Your task to perform on an android device: Go to Yahoo.com Image 0: 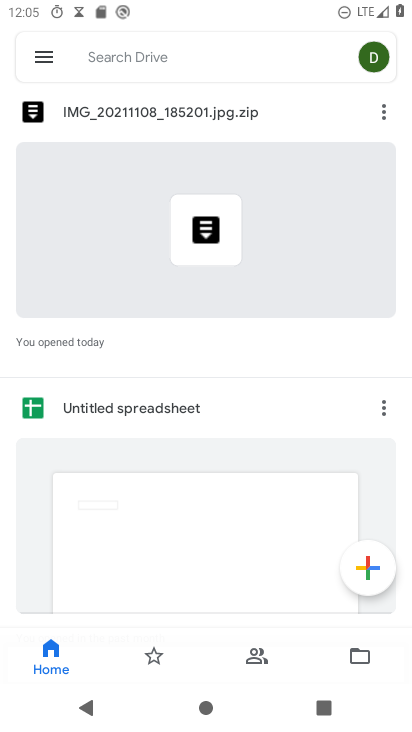
Step 0: press home button
Your task to perform on an android device: Go to Yahoo.com Image 1: 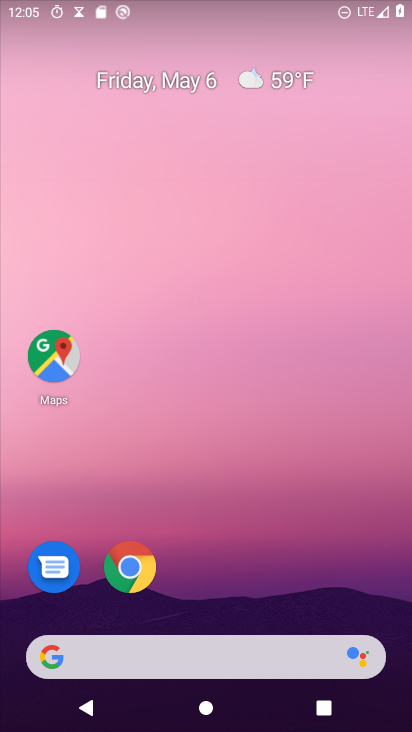
Step 1: click (122, 574)
Your task to perform on an android device: Go to Yahoo.com Image 2: 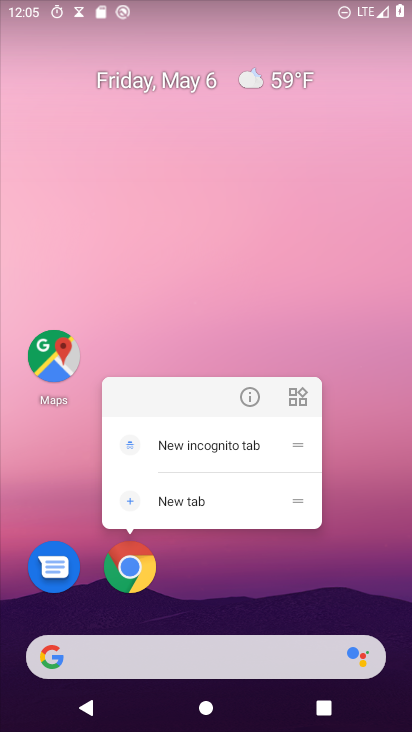
Step 2: click (136, 577)
Your task to perform on an android device: Go to Yahoo.com Image 3: 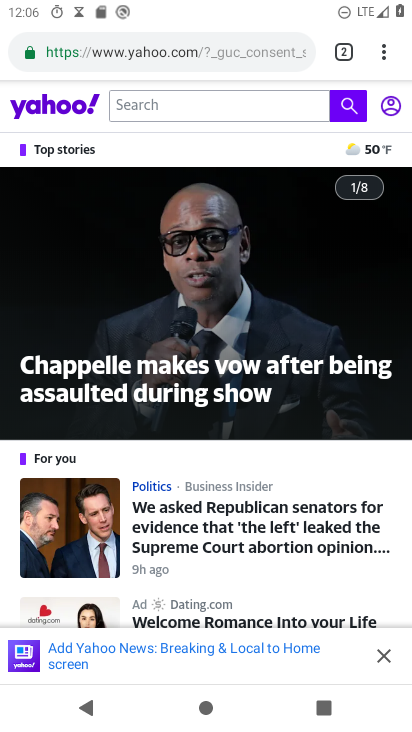
Step 3: task complete